Your task to perform on an android device: clear all cookies in the chrome app Image 0: 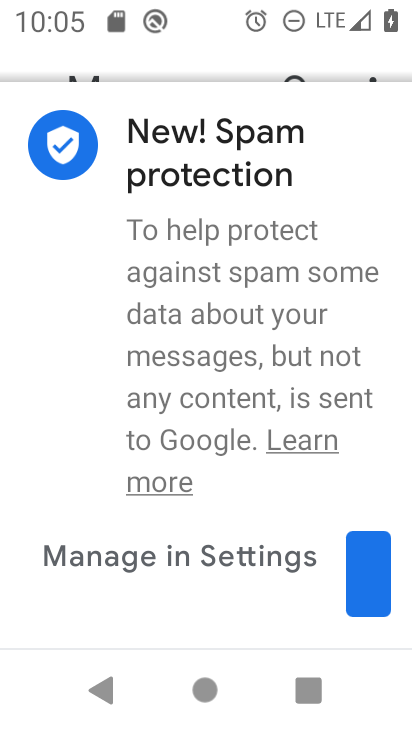
Step 0: press home button
Your task to perform on an android device: clear all cookies in the chrome app Image 1: 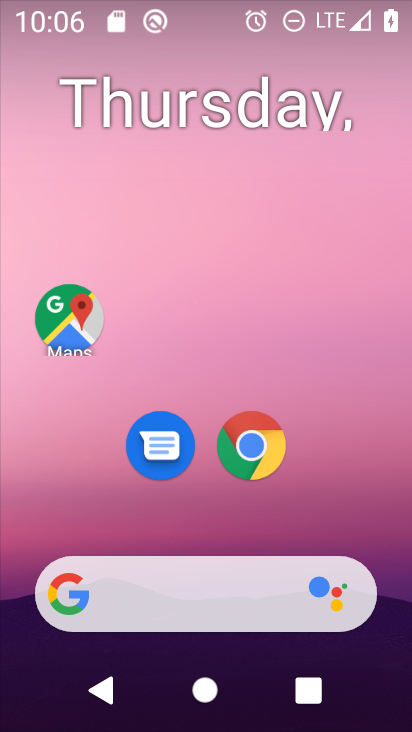
Step 1: click (385, 626)
Your task to perform on an android device: clear all cookies in the chrome app Image 2: 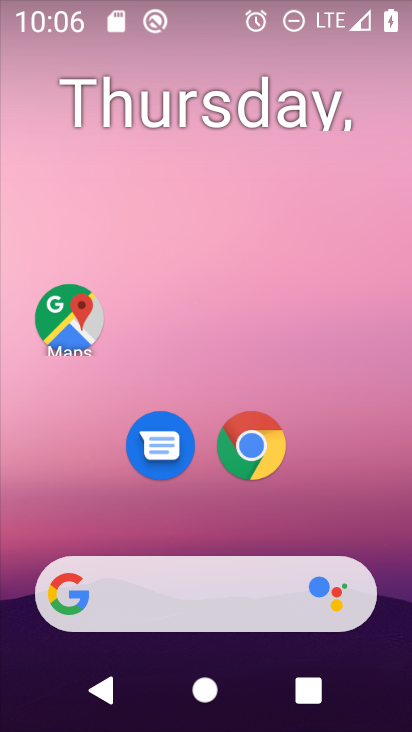
Step 2: click (338, 147)
Your task to perform on an android device: clear all cookies in the chrome app Image 3: 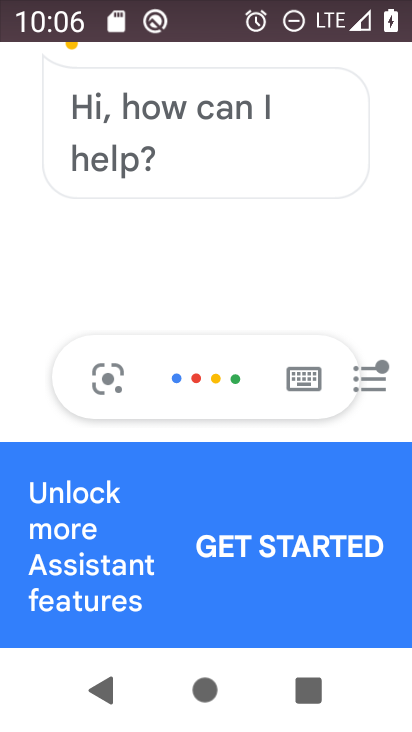
Step 3: press home button
Your task to perform on an android device: clear all cookies in the chrome app Image 4: 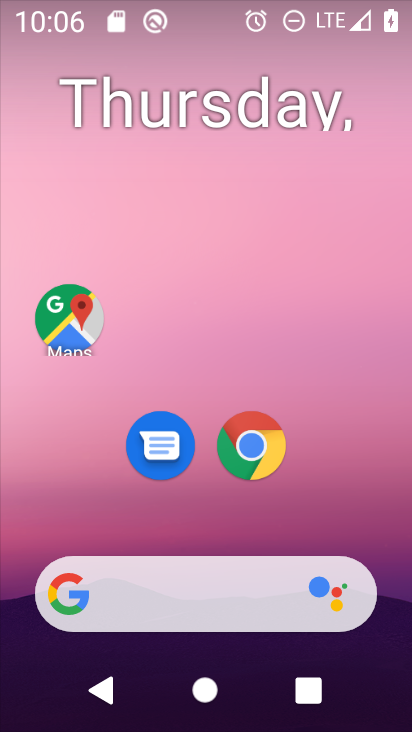
Step 4: drag from (394, 617) to (311, 86)
Your task to perform on an android device: clear all cookies in the chrome app Image 5: 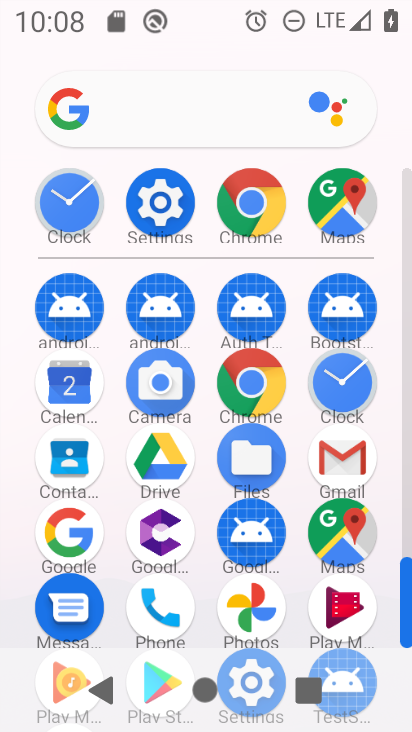
Step 5: click (268, 385)
Your task to perform on an android device: clear all cookies in the chrome app Image 6: 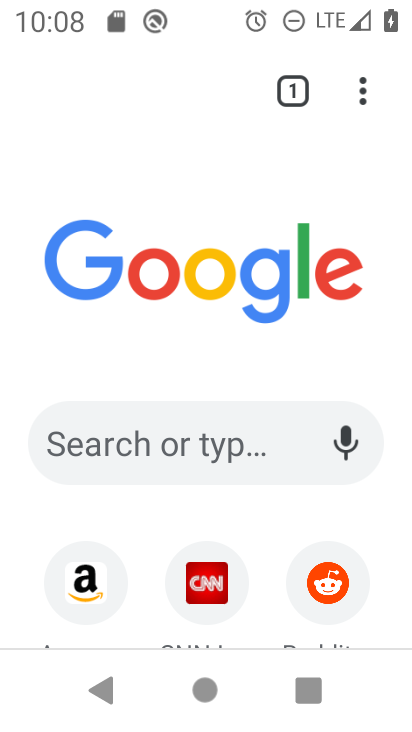
Step 6: click (359, 79)
Your task to perform on an android device: clear all cookies in the chrome app Image 7: 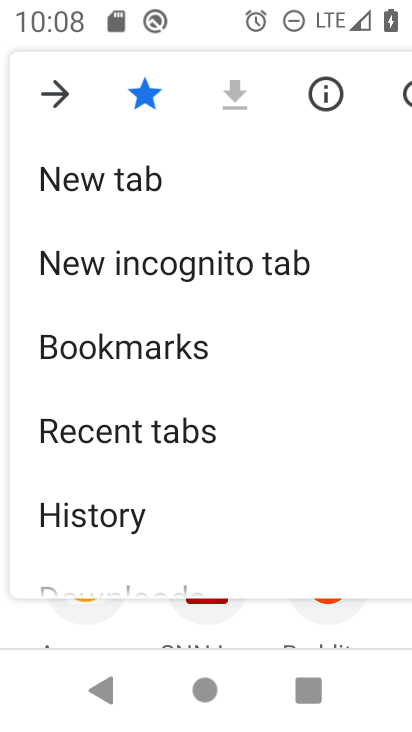
Step 7: click (158, 521)
Your task to perform on an android device: clear all cookies in the chrome app Image 8: 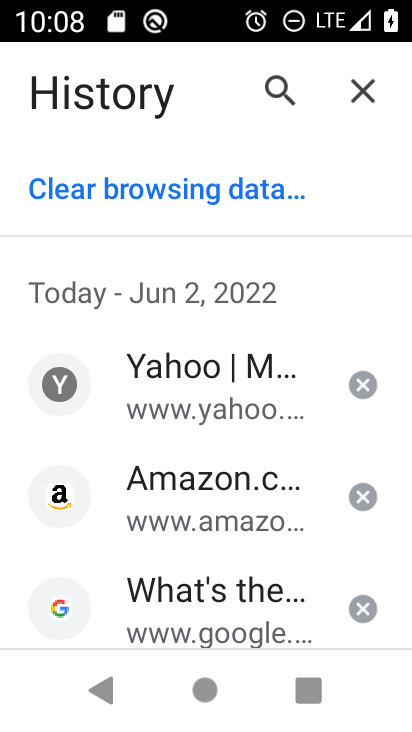
Step 8: click (192, 202)
Your task to perform on an android device: clear all cookies in the chrome app Image 9: 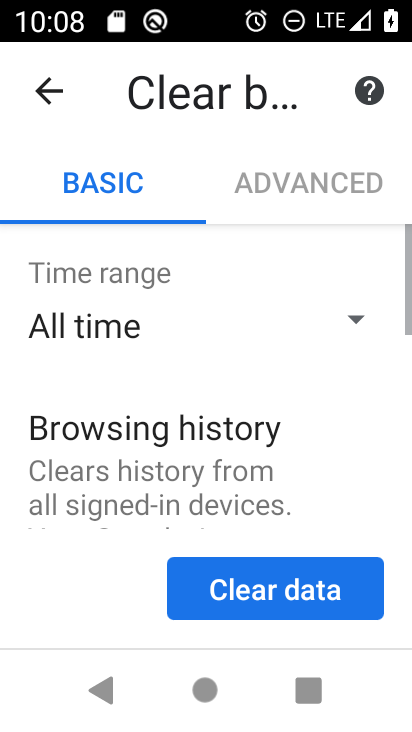
Step 9: click (329, 594)
Your task to perform on an android device: clear all cookies in the chrome app Image 10: 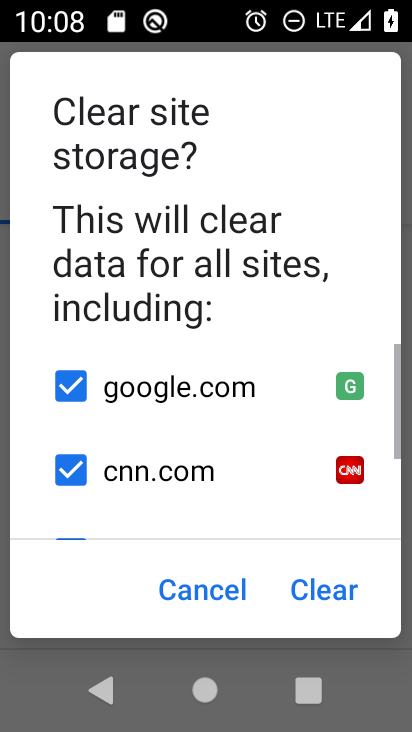
Step 10: click (329, 591)
Your task to perform on an android device: clear all cookies in the chrome app Image 11: 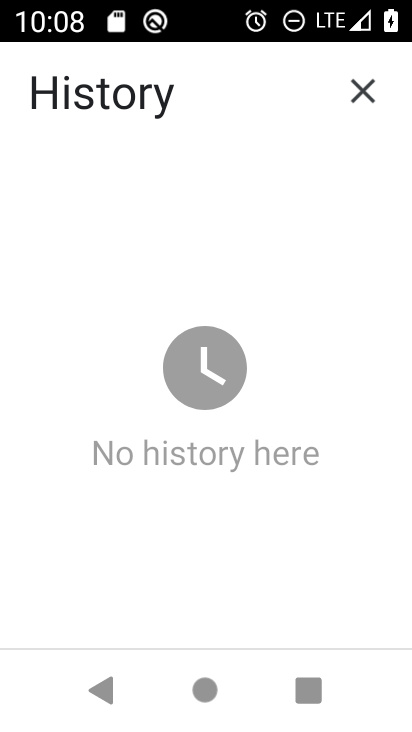
Step 11: task complete